Your task to perform on an android device: Open internet settings Image 0: 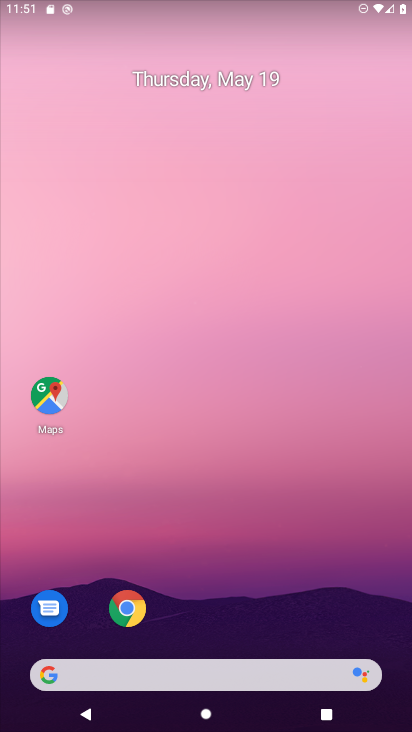
Step 0: press home button
Your task to perform on an android device: Open internet settings Image 1: 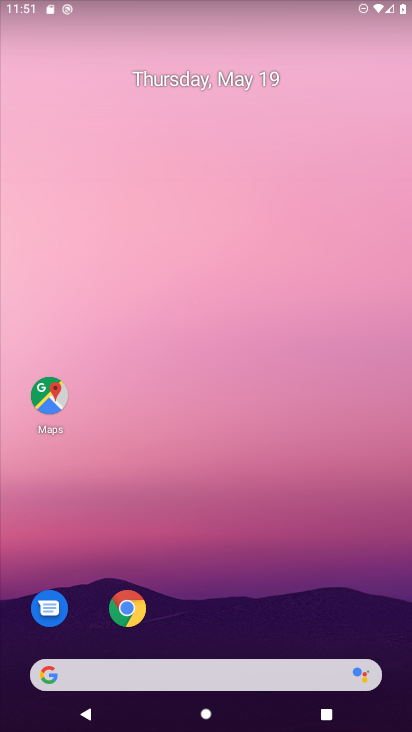
Step 1: drag from (312, 636) to (302, 154)
Your task to perform on an android device: Open internet settings Image 2: 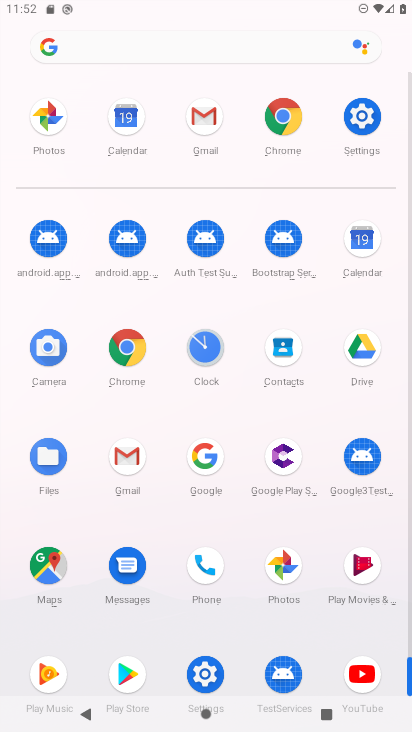
Step 2: click (224, 655)
Your task to perform on an android device: Open internet settings Image 3: 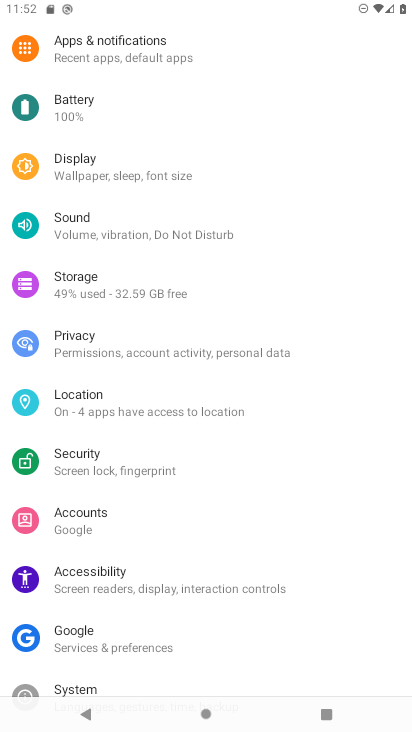
Step 3: drag from (164, 214) to (228, 731)
Your task to perform on an android device: Open internet settings Image 4: 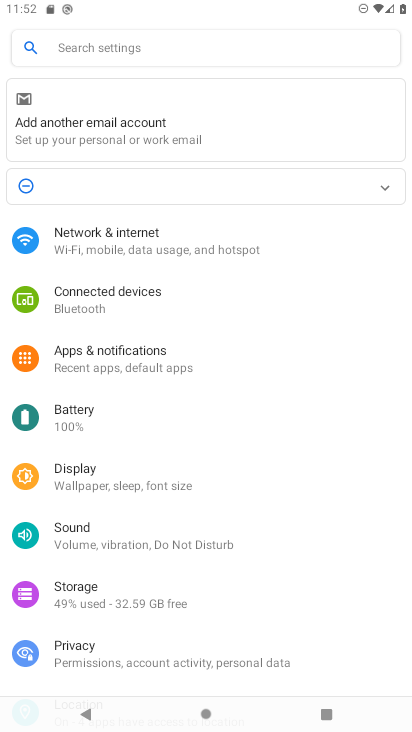
Step 4: click (158, 247)
Your task to perform on an android device: Open internet settings Image 5: 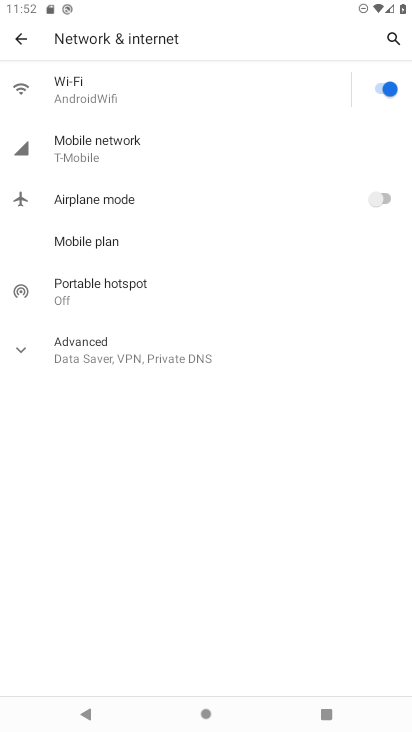
Step 5: task complete